Your task to perform on an android device: Open the calendar app, open the side menu, and click the "Day" option Image 0: 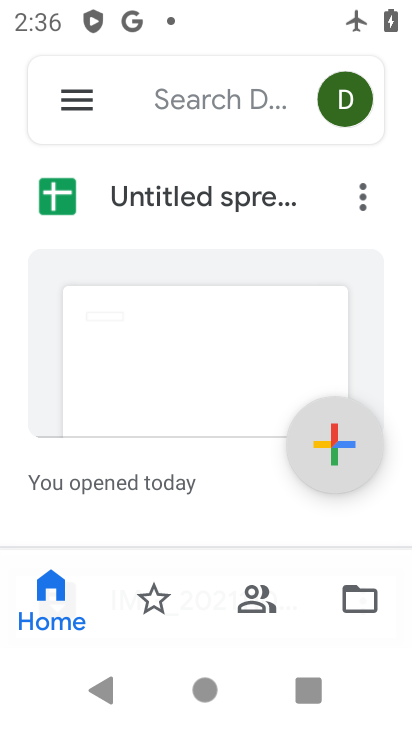
Step 0: press home button
Your task to perform on an android device: Open the calendar app, open the side menu, and click the "Day" option Image 1: 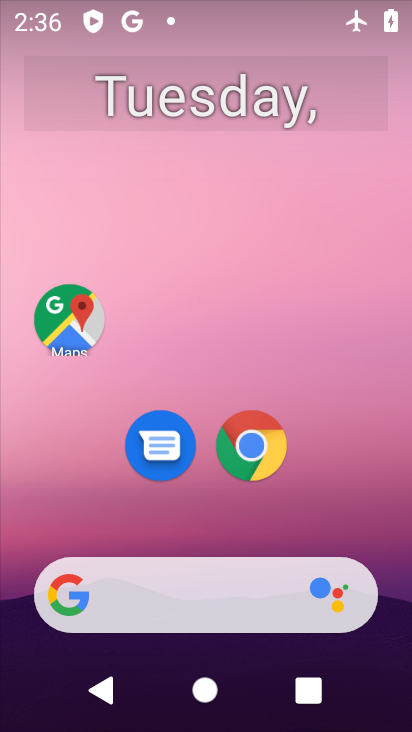
Step 1: drag from (265, 512) to (274, 8)
Your task to perform on an android device: Open the calendar app, open the side menu, and click the "Day" option Image 2: 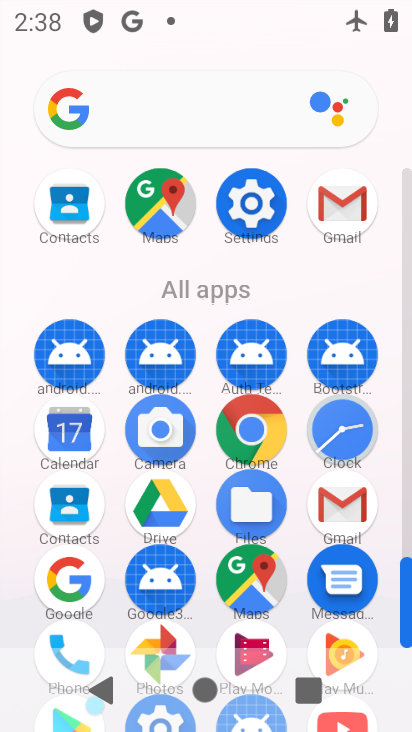
Step 2: click (70, 438)
Your task to perform on an android device: Open the calendar app, open the side menu, and click the "Day" option Image 3: 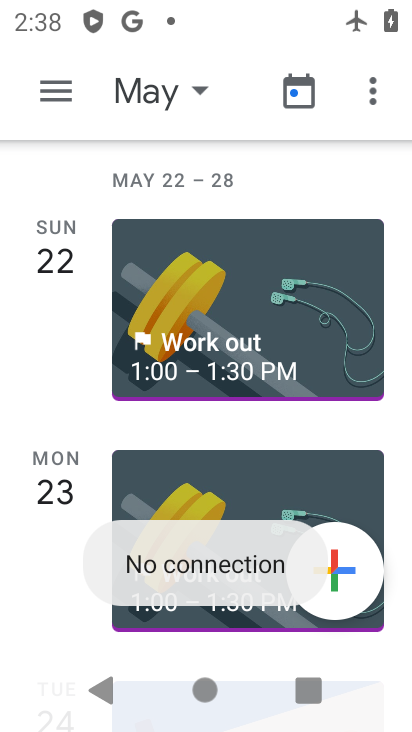
Step 3: click (55, 82)
Your task to perform on an android device: Open the calendar app, open the side menu, and click the "Day" option Image 4: 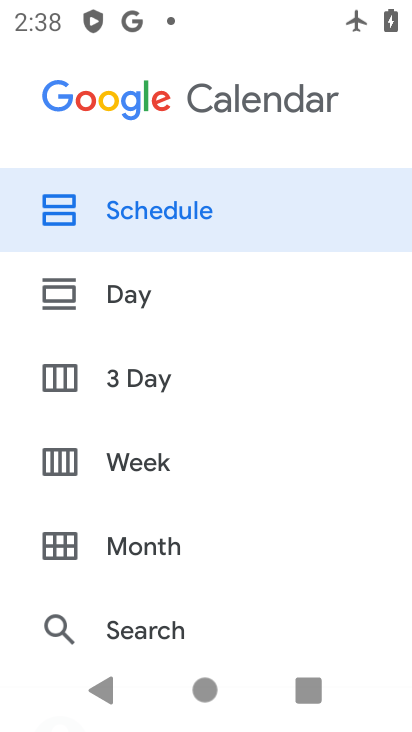
Step 4: click (103, 298)
Your task to perform on an android device: Open the calendar app, open the side menu, and click the "Day" option Image 5: 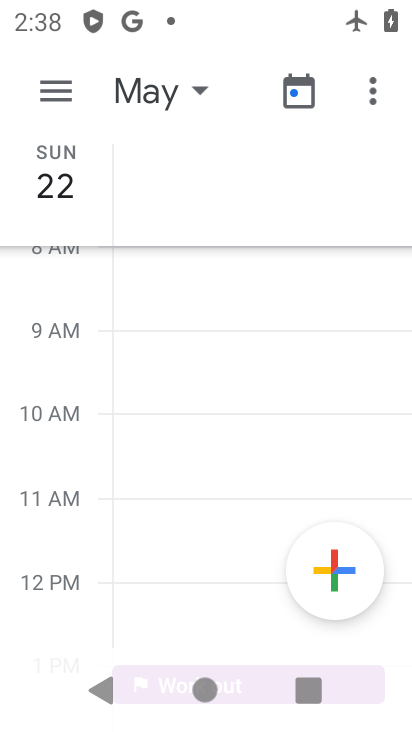
Step 5: task complete